Your task to perform on an android device: move a message to another label in the gmail app Image 0: 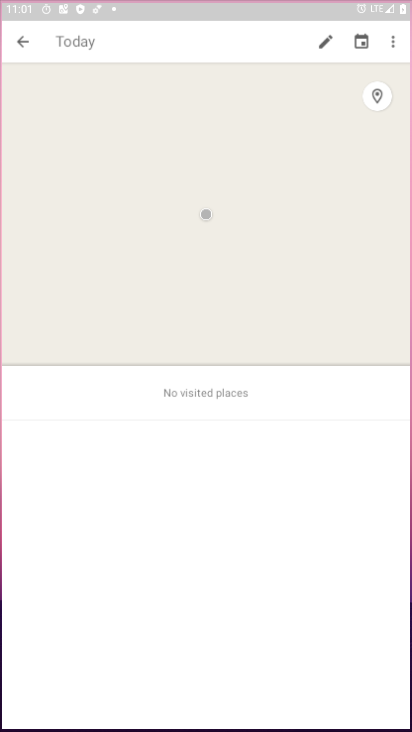
Step 0: drag from (203, 685) to (235, 243)
Your task to perform on an android device: move a message to another label in the gmail app Image 1: 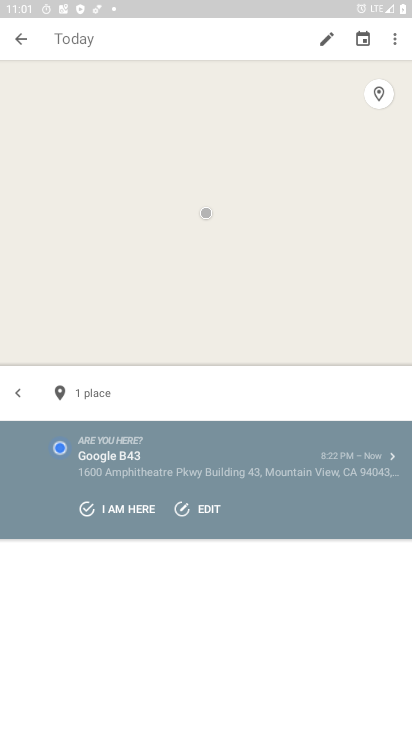
Step 1: press home button
Your task to perform on an android device: move a message to another label in the gmail app Image 2: 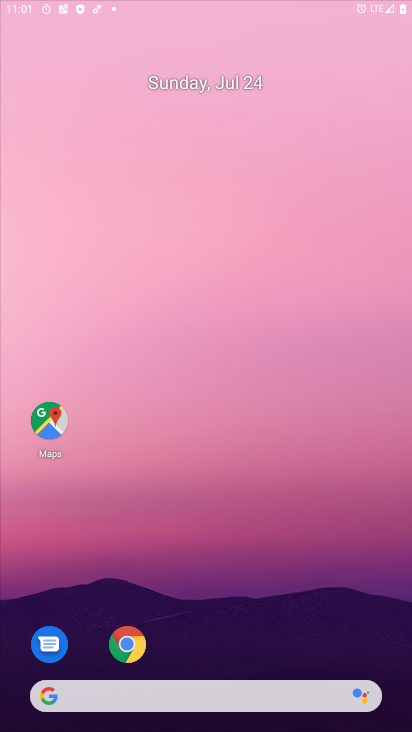
Step 2: drag from (168, 660) to (242, 146)
Your task to perform on an android device: move a message to another label in the gmail app Image 3: 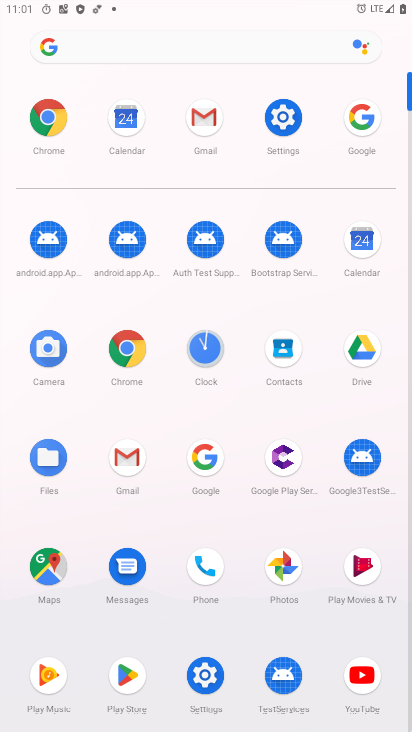
Step 3: click (135, 461)
Your task to perform on an android device: move a message to another label in the gmail app Image 4: 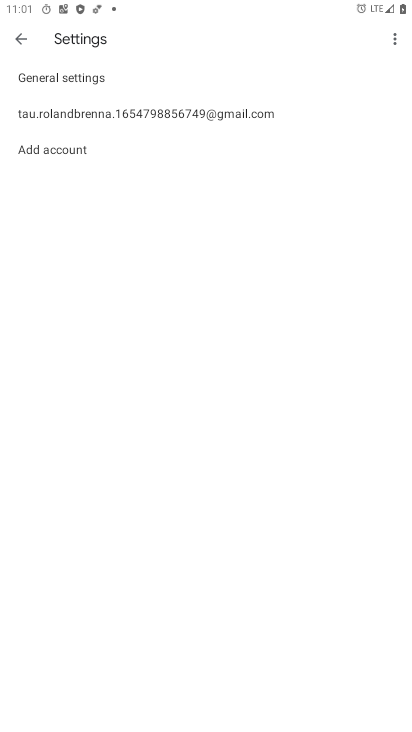
Step 4: click (24, 41)
Your task to perform on an android device: move a message to another label in the gmail app Image 5: 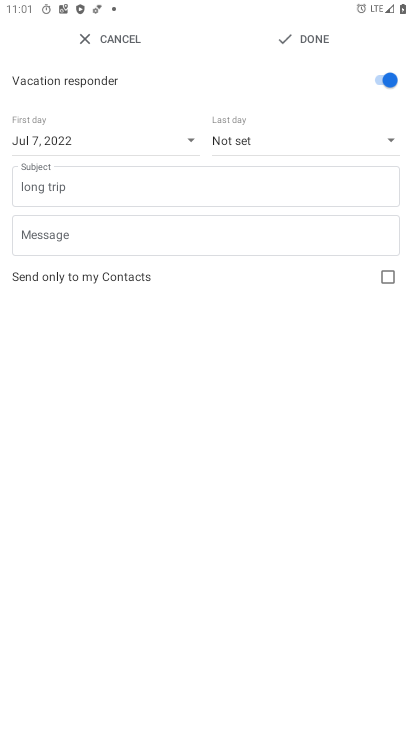
Step 5: click (83, 40)
Your task to perform on an android device: move a message to another label in the gmail app Image 6: 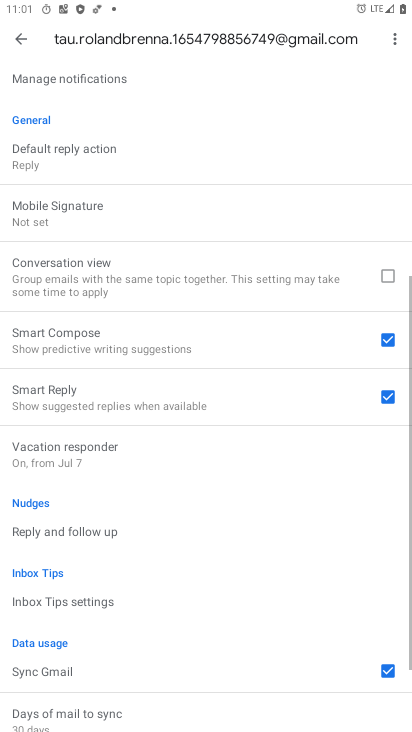
Step 6: click (24, 23)
Your task to perform on an android device: move a message to another label in the gmail app Image 7: 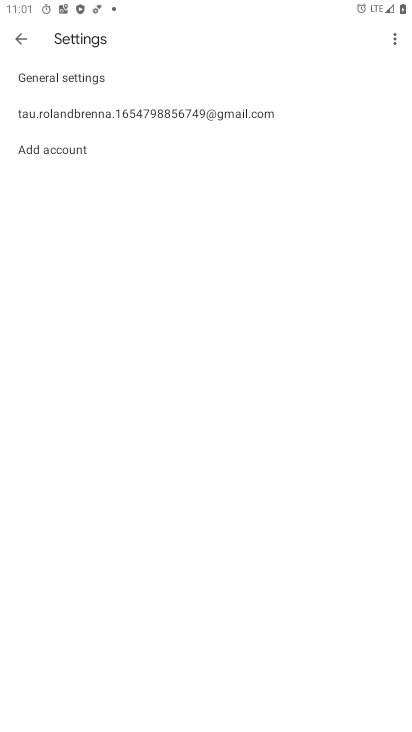
Step 7: click (25, 48)
Your task to perform on an android device: move a message to another label in the gmail app Image 8: 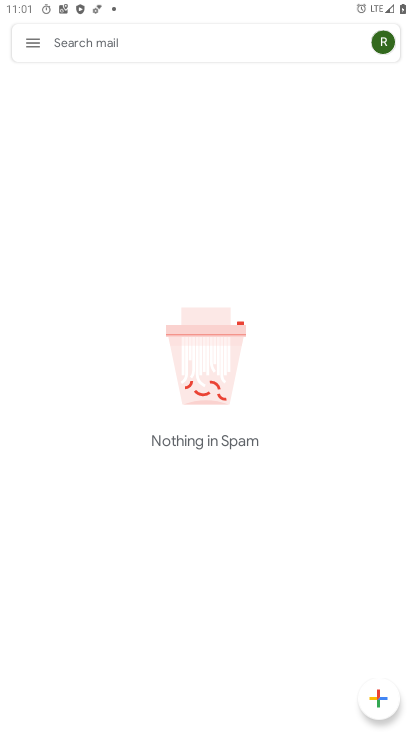
Step 8: click (38, 44)
Your task to perform on an android device: move a message to another label in the gmail app Image 9: 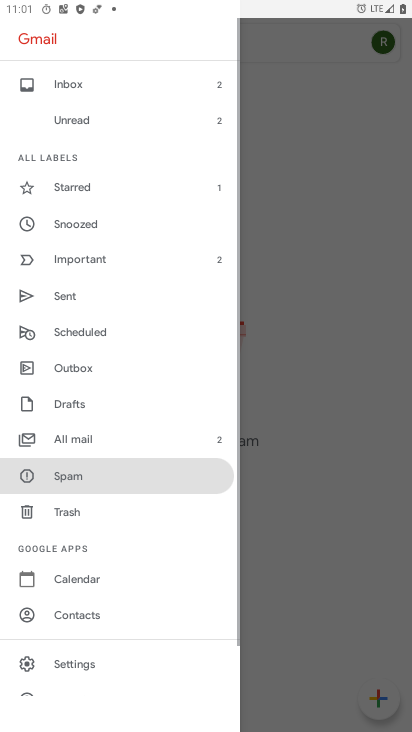
Step 9: click (65, 92)
Your task to perform on an android device: move a message to another label in the gmail app Image 10: 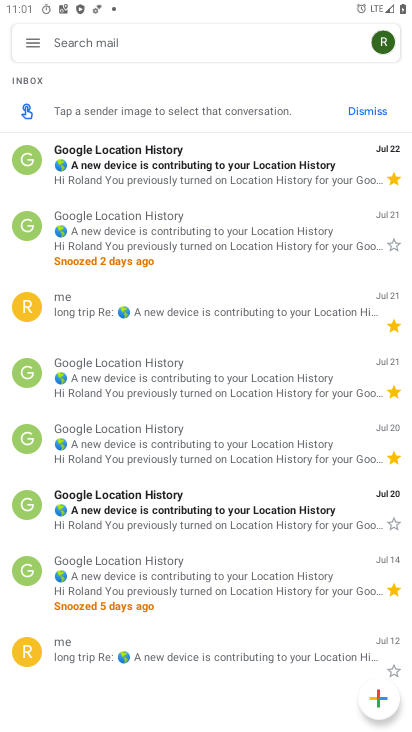
Step 10: click (208, 314)
Your task to perform on an android device: move a message to another label in the gmail app Image 11: 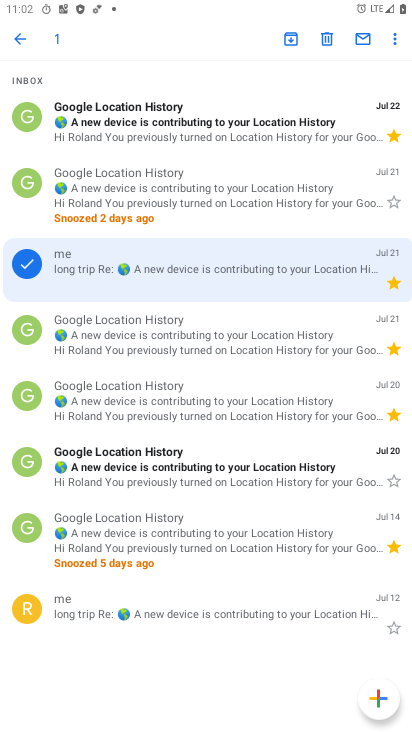
Step 11: click (393, 39)
Your task to perform on an android device: move a message to another label in the gmail app Image 12: 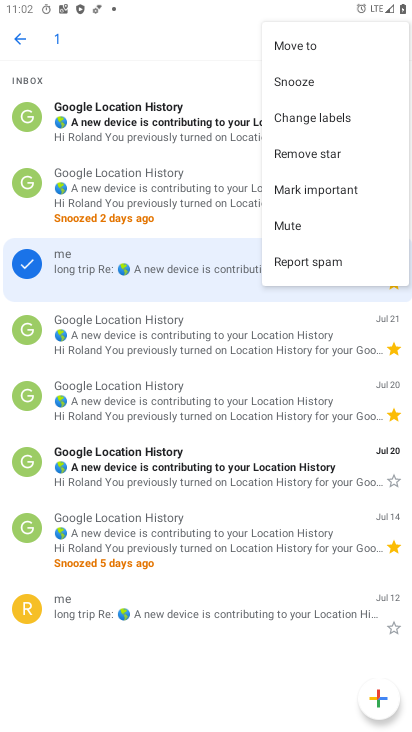
Step 12: click (299, 43)
Your task to perform on an android device: move a message to another label in the gmail app Image 13: 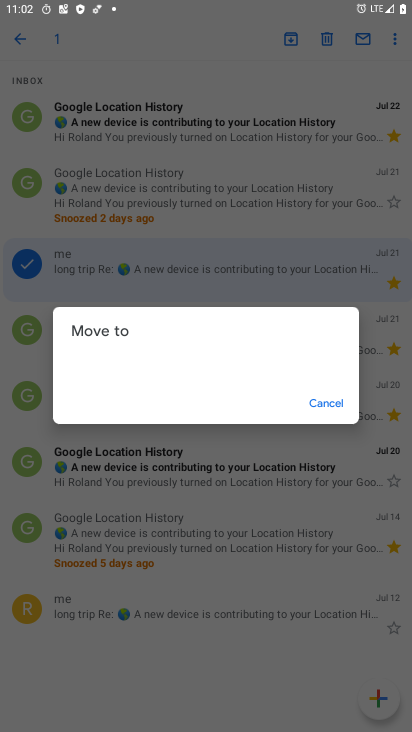
Step 13: click (145, 354)
Your task to perform on an android device: move a message to another label in the gmail app Image 14: 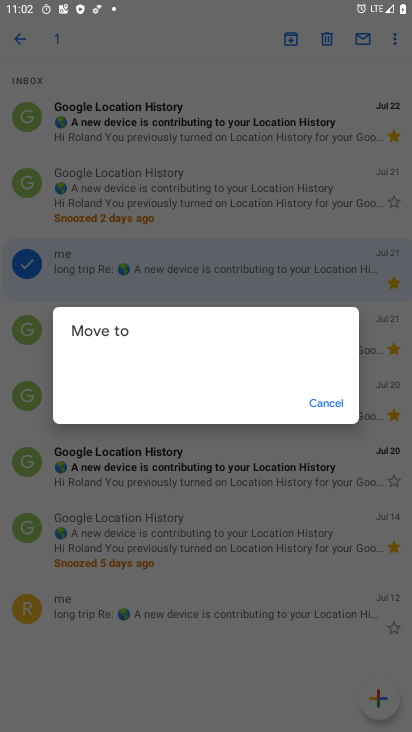
Step 14: click (319, 46)
Your task to perform on an android device: move a message to another label in the gmail app Image 15: 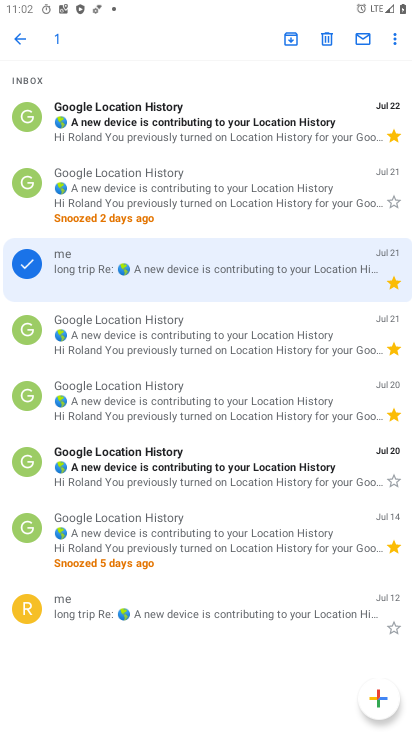
Step 15: click (395, 37)
Your task to perform on an android device: move a message to another label in the gmail app Image 16: 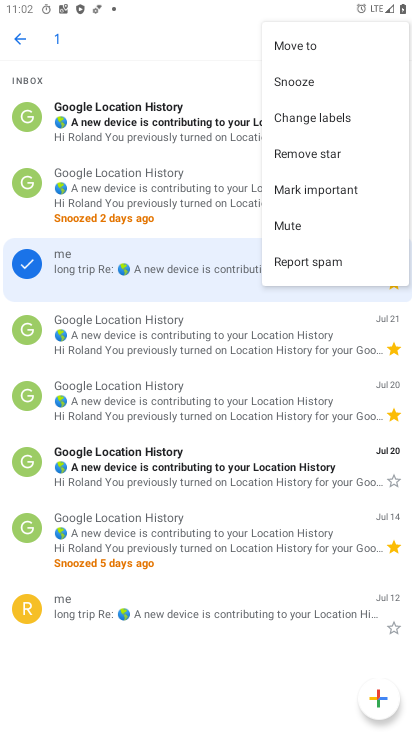
Step 16: click (308, 49)
Your task to perform on an android device: move a message to another label in the gmail app Image 17: 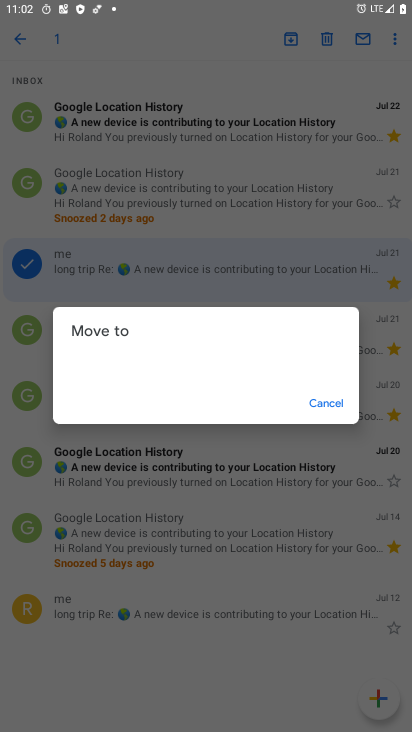
Step 17: click (133, 356)
Your task to perform on an android device: move a message to another label in the gmail app Image 18: 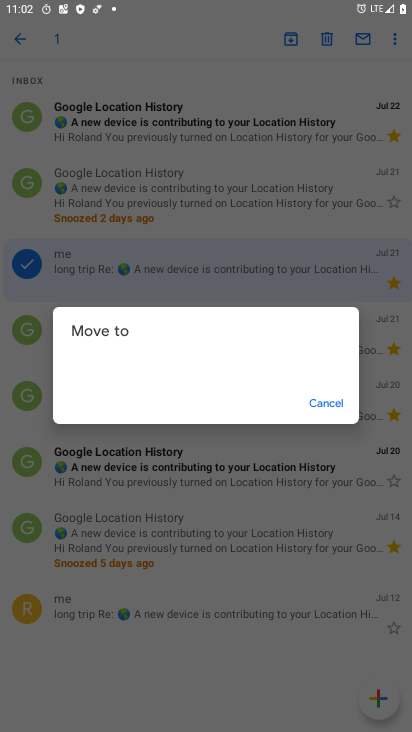
Step 18: click (298, 365)
Your task to perform on an android device: move a message to another label in the gmail app Image 19: 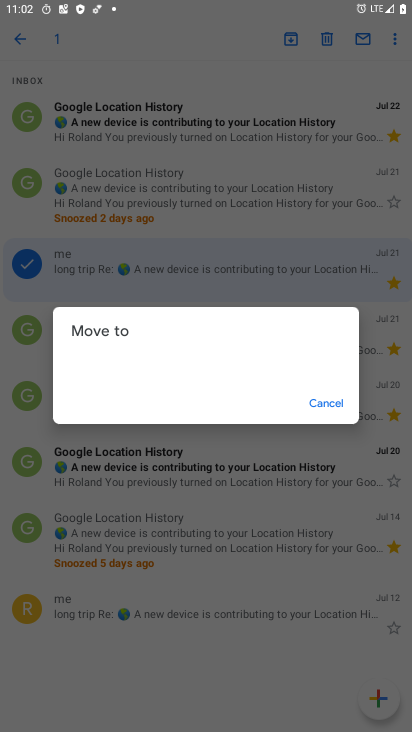
Step 19: click (328, 403)
Your task to perform on an android device: move a message to another label in the gmail app Image 20: 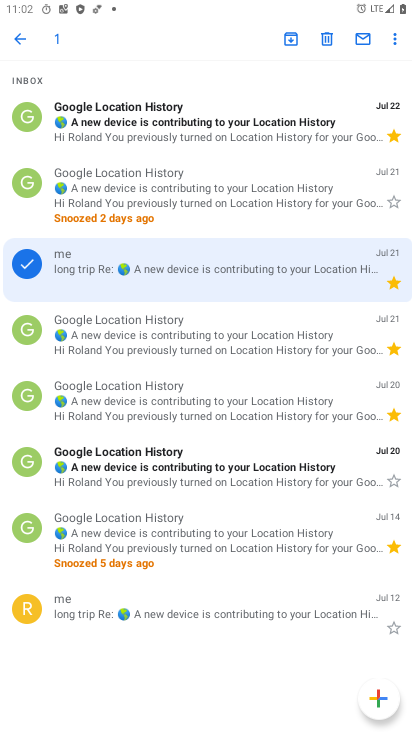
Step 20: task complete